Your task to perform on an android device: open sync settings in chrome Image 0: 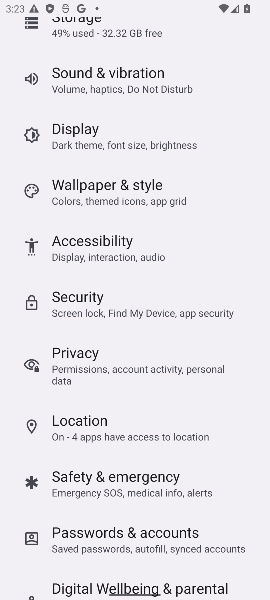
Step 0: press back button
Your task to perform on an android device: open sync settings in chrome Image 1: 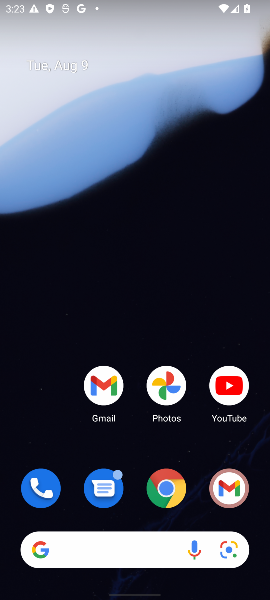
Step 1: press home button
Your task to perform on an android device: open sync settings in chrome Image 2: 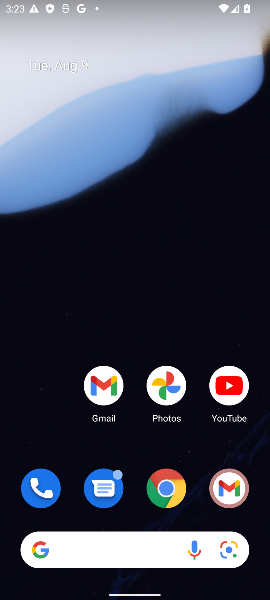
Step 2: drag from (197, 351) to (164, 84)
Your task to perform on an android device: open sync settings in chrome Image 3: 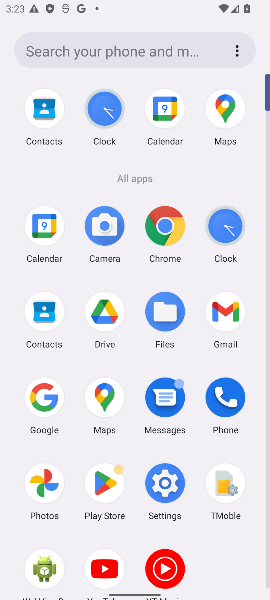
Step 3: click (162, 231)
Your task to perform on an android device: open sync settings in chrome Image 4: 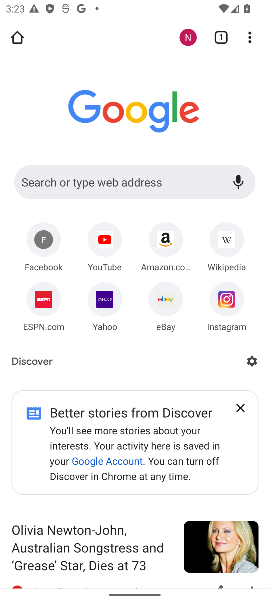
Step 4: click (247, 27)
Your task to perform on an android device: open sync settings in chrome Image 5: 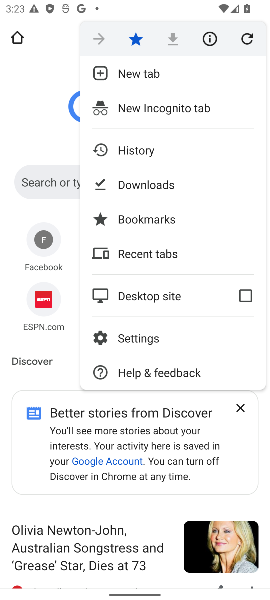
Step 5: click (135, 337)
Your task to perform on an android device: open sync settings in chrome Image 6: 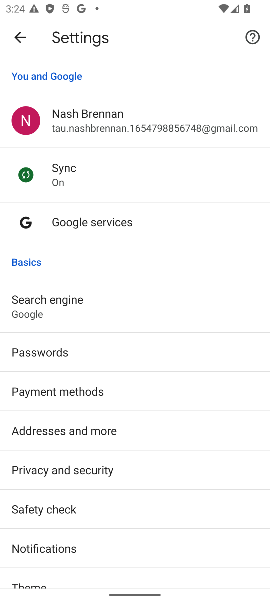
Step 6: click (153, 166)
Your task to perform on an android device: open sync settings in chrome Image 7: 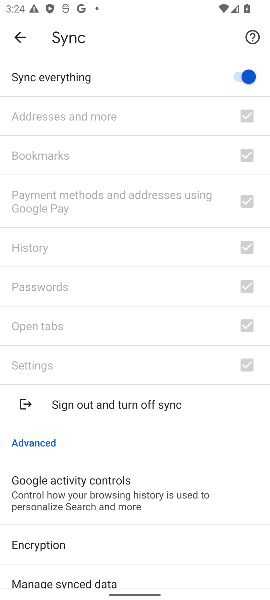
Step 7: task complete